Your task to perform on an android device: change the clock style Image 0: 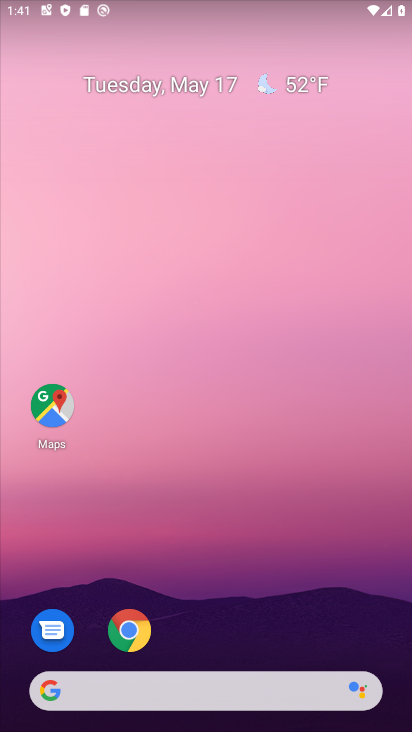
Step 0: drag from (206, 674) to (318, 178)
Your task to perform on an android device: change the clock style Image 1: 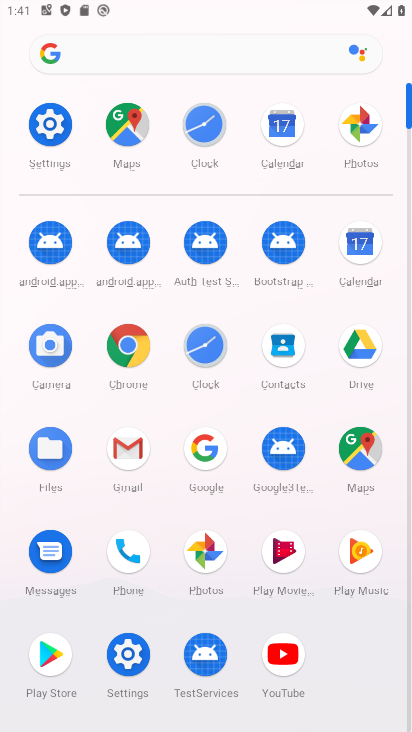
Step 1: click (207, 342)
Your task to perform on an android device: change the clock style Image 2: 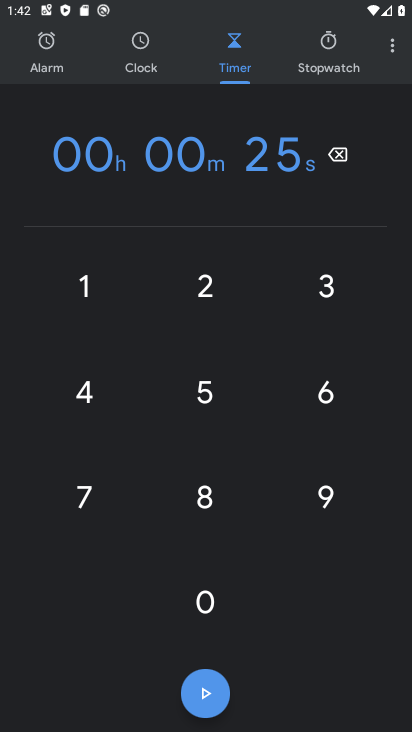
Step 2: click (391, 41)
Your task to perform on an android device: change the clock style Image 3: 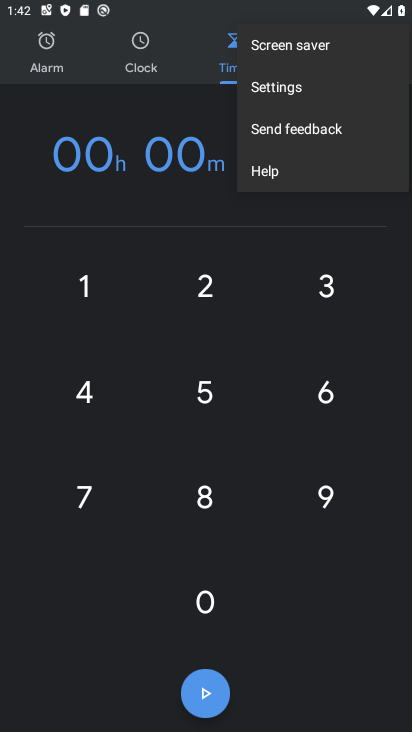
Step 3: click (247, 90)
Your task to perform on an android device: change the clock style Image 4: 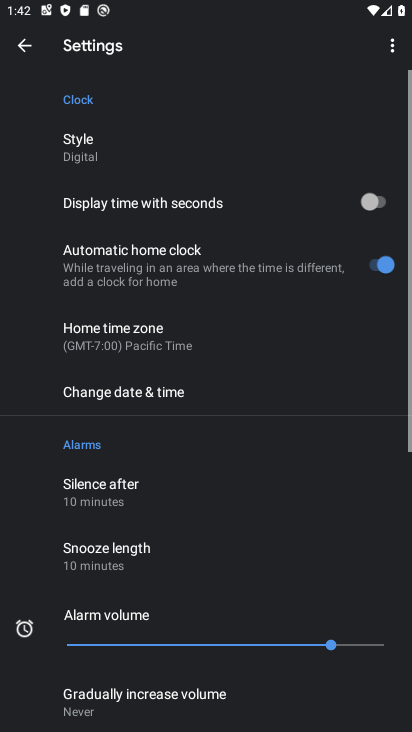
Step 4: click (117, 154)
Your task to perform on an android device: change the clock style Image 5: 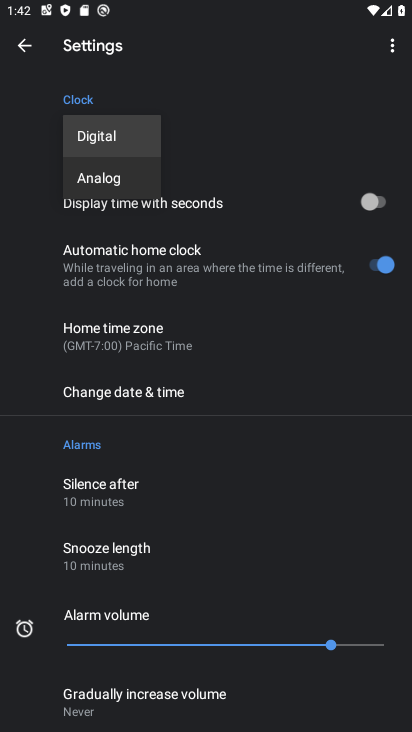
Step 5: click (137, 177)
Your task to perform on an android device: change the clock style Image 6: 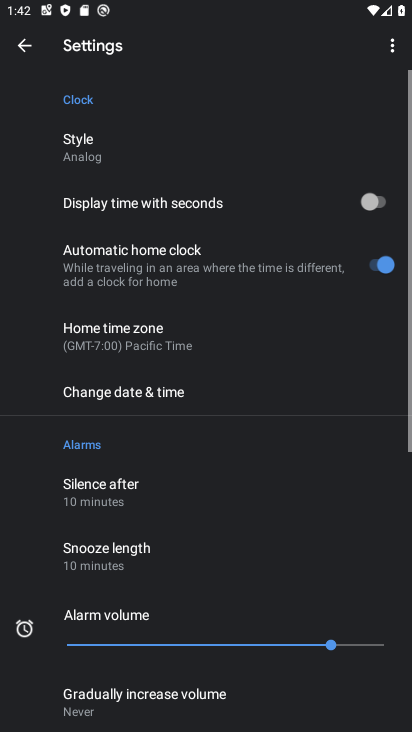
Step 6: task complete